Your task to perform on an android device: Go to Amazon Image 0: 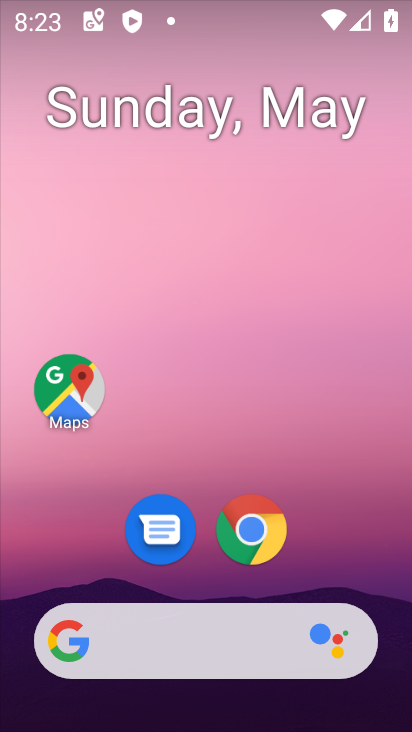
Step 0: click (257, 530)
Your task to perform on an android device: Go to Amazon Image 1: 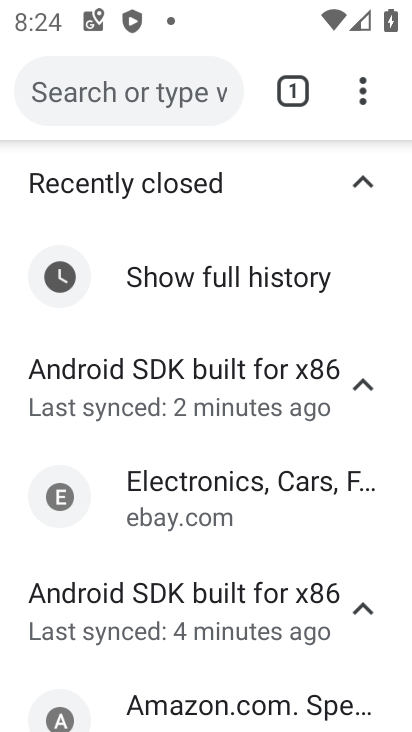
Step 1: click (121, 89)
Your task to perform on an android device: Go to Amazon Image 2: 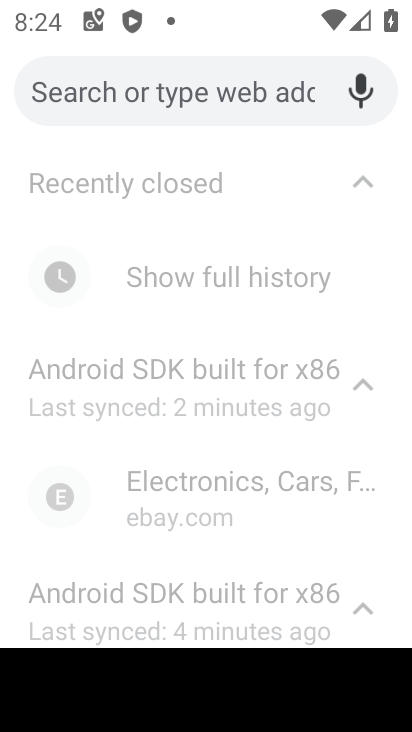
Step 2: type "amazon"
Your task to perform on an android device: Go to Amazon Image 3: 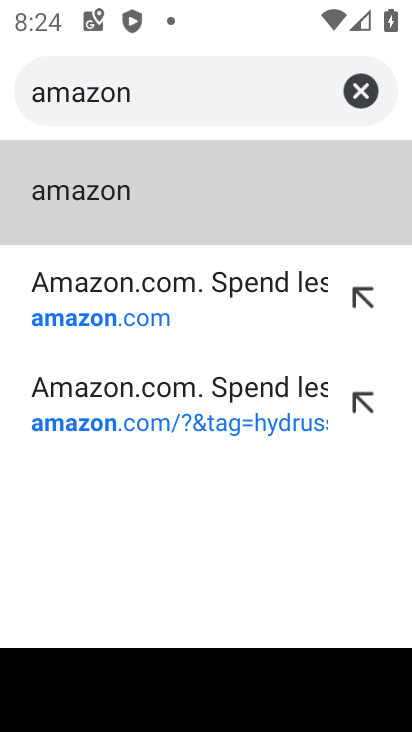
Step 3: click (68, 185)
Your task to perform on an android device: Go to Amazon Image 4: 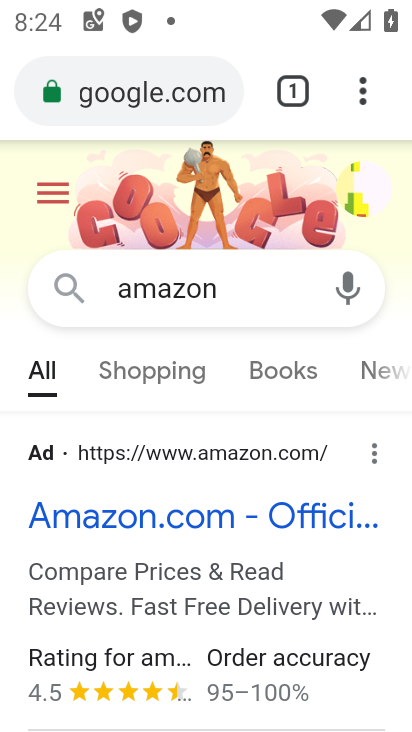
Step 4: click (38, 509)
Your task to perform on an android device: Go to Amazon Image 5: 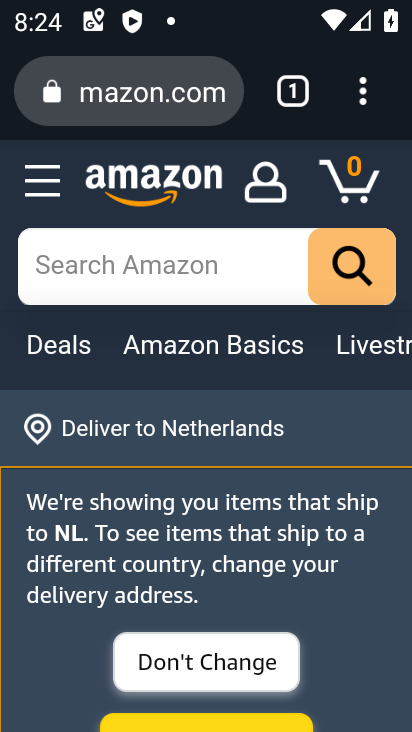
Step 5: task complete